Your task to perform on an android device: change notifications settings Image 0: 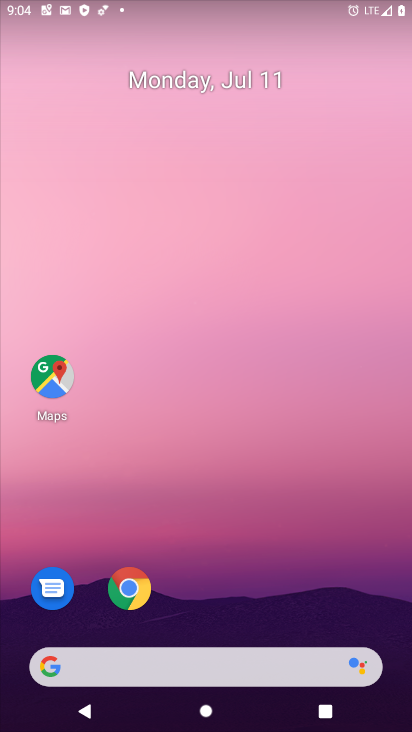
Step 0: drag from (207, 656) to (311, 204)
Your task to perform on an android device: change notifications settings Image 1: 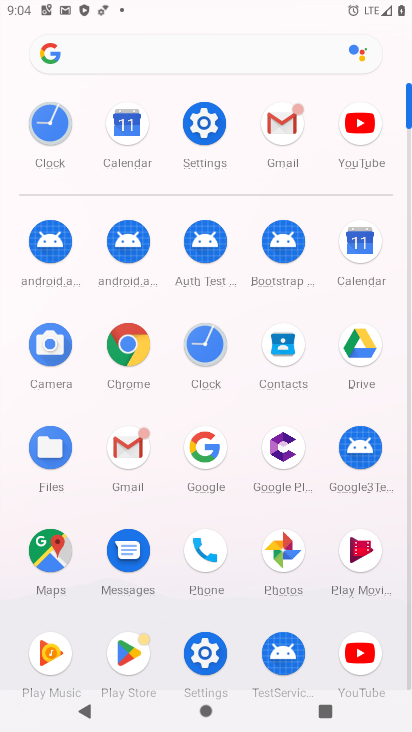
Step 1: click (216, 127)
Your task to perform on an android device: change notifications settings Image 2: 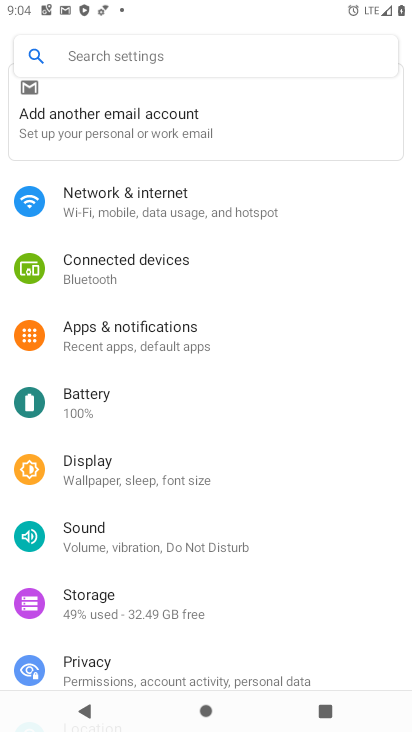
Step 2: click (167, 330)
Your task to perform on an android device: change notifications settings Image 3: 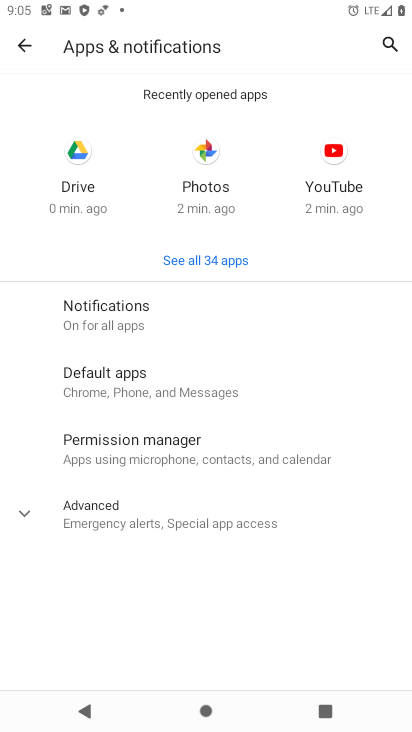
Step 3: click (127, 321)
Your task to perform on an android device: change notifications settings Image 4: 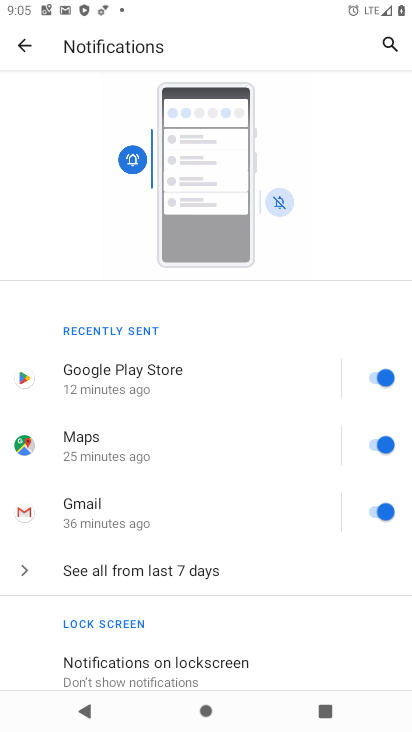
Step 4: click (375, 378)
Your task to perform on an android device: change notifications settings Image 5: 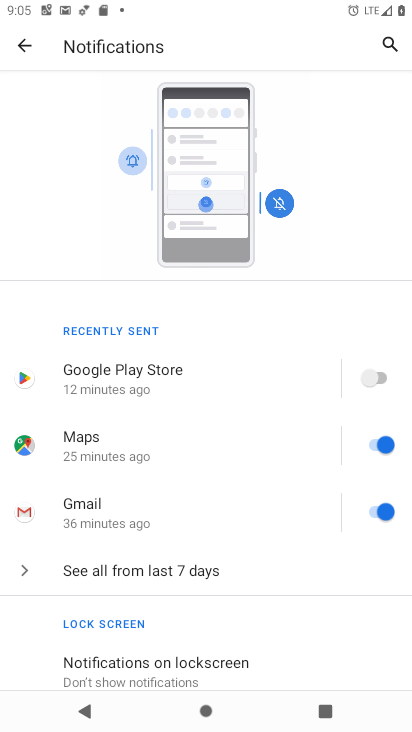
Step 5: task complete